Your task to perform on an android device: turn off location history Image 0: 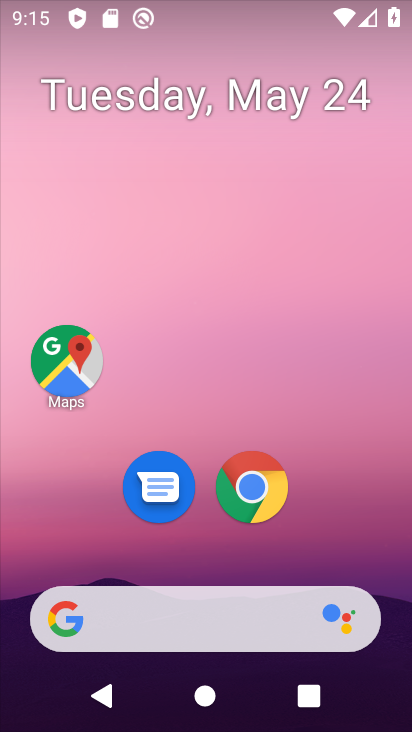
Step 0: click (57, 352)
Your task to perform on an android device: turn off location history Image 1: 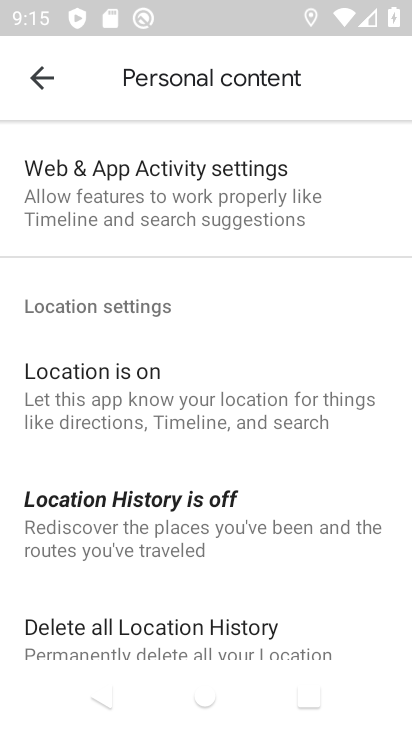
Step 1: click (161, 521)
Your task to perform on an android device: turn off location history Image 2: 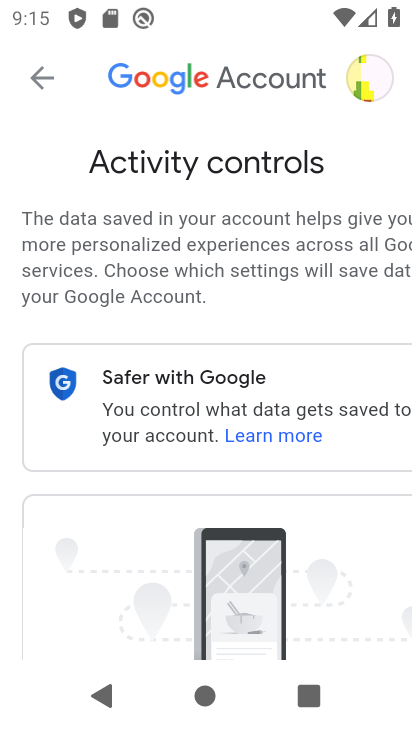
Step 2: task complete